Your task to perform on an android device: When is my next appointment? Image 0: 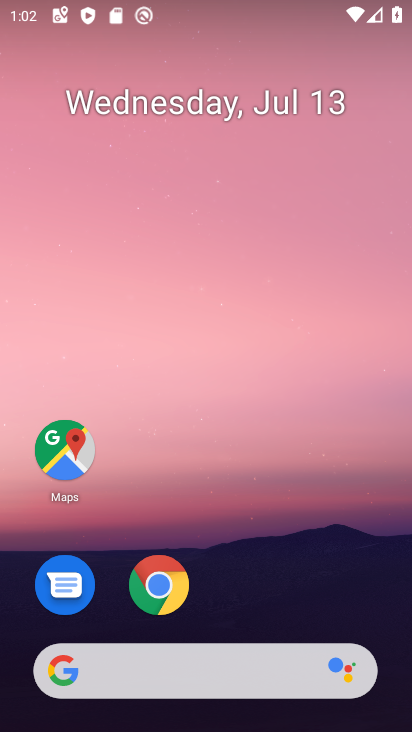
Step 0: drag from (194, 669) to (282, 91)
Your task to perform on an android device: When is my next appointment? Image 1: 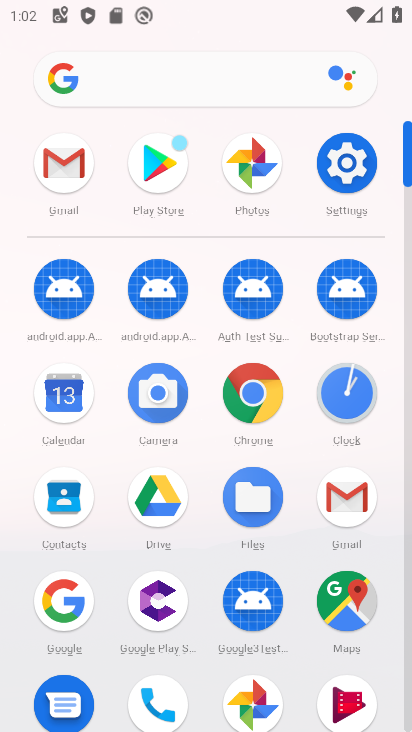
Step 1: click (75, 408)
Your task to perform on an android device: When is my next appointment? Image 2: 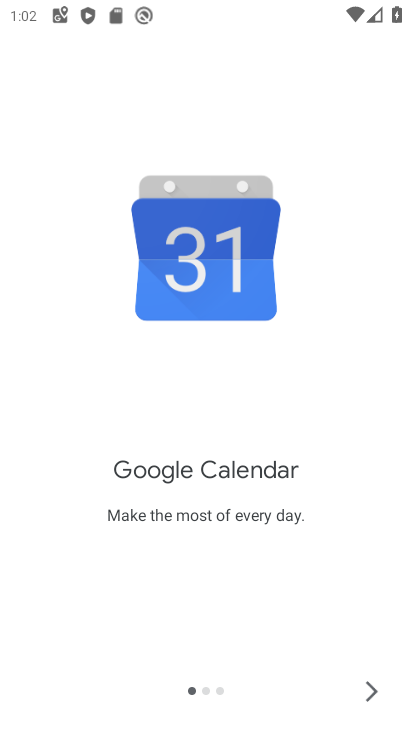
Step 2: click (373, 694)
Your task to perform on an android device: When is my next appointment? Image 3: 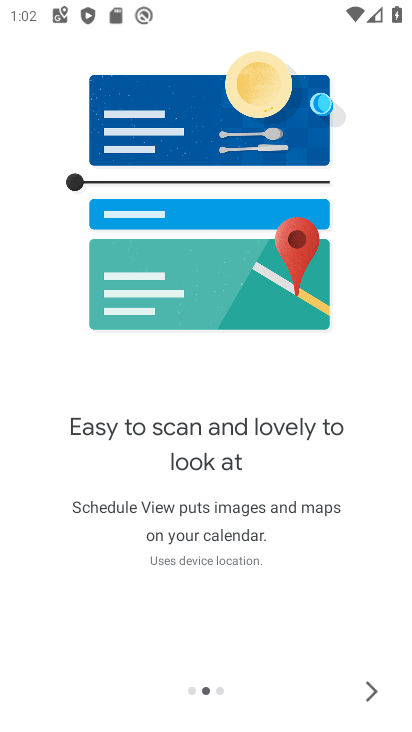
Step 3: click (373, 693)
Your task to perform on an android device: When is my next appointment? Image 4: 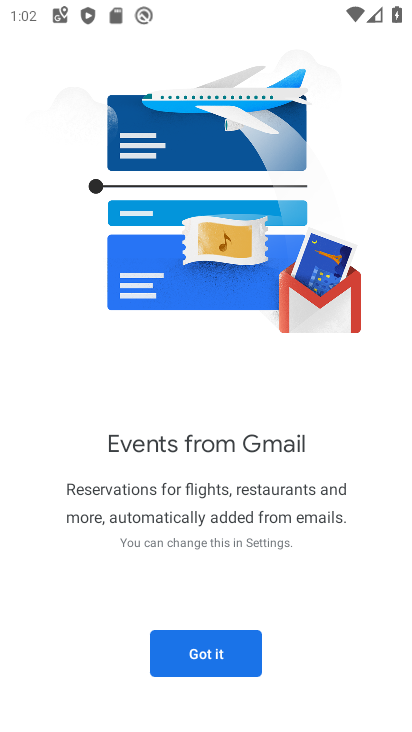
Step 4: click (211, 655)
Your task to perform on an android device: When is my next appointment? Image 5: 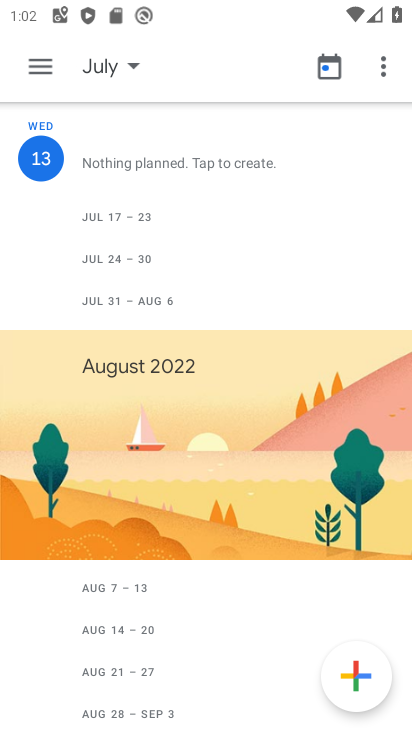
Step 5: task complete